Your task to perform on an android device: Do I have any events tomorrow? Image 0: 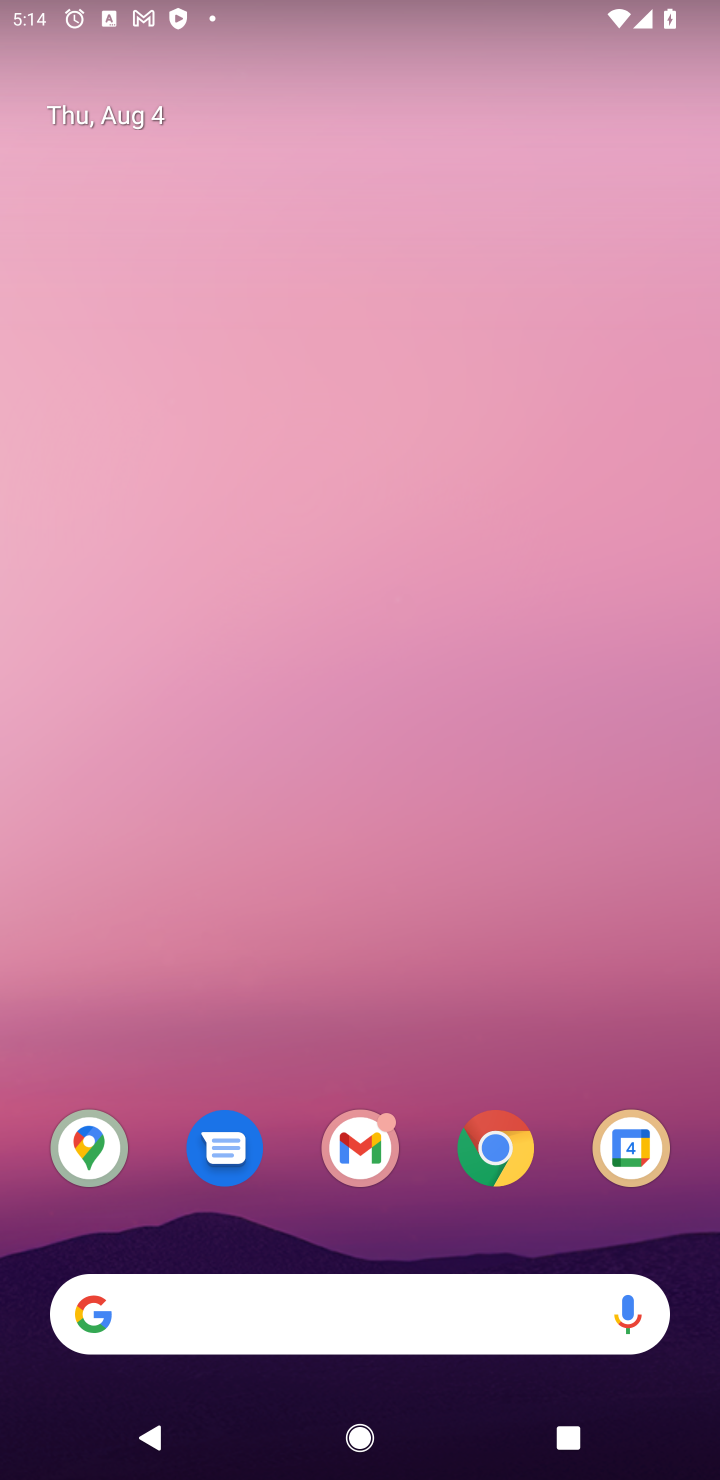
Step 0: drag from (563, 1207) to (559, 188)
Your task to perform on an android device: Do I have any events tomorrow? Image 1: 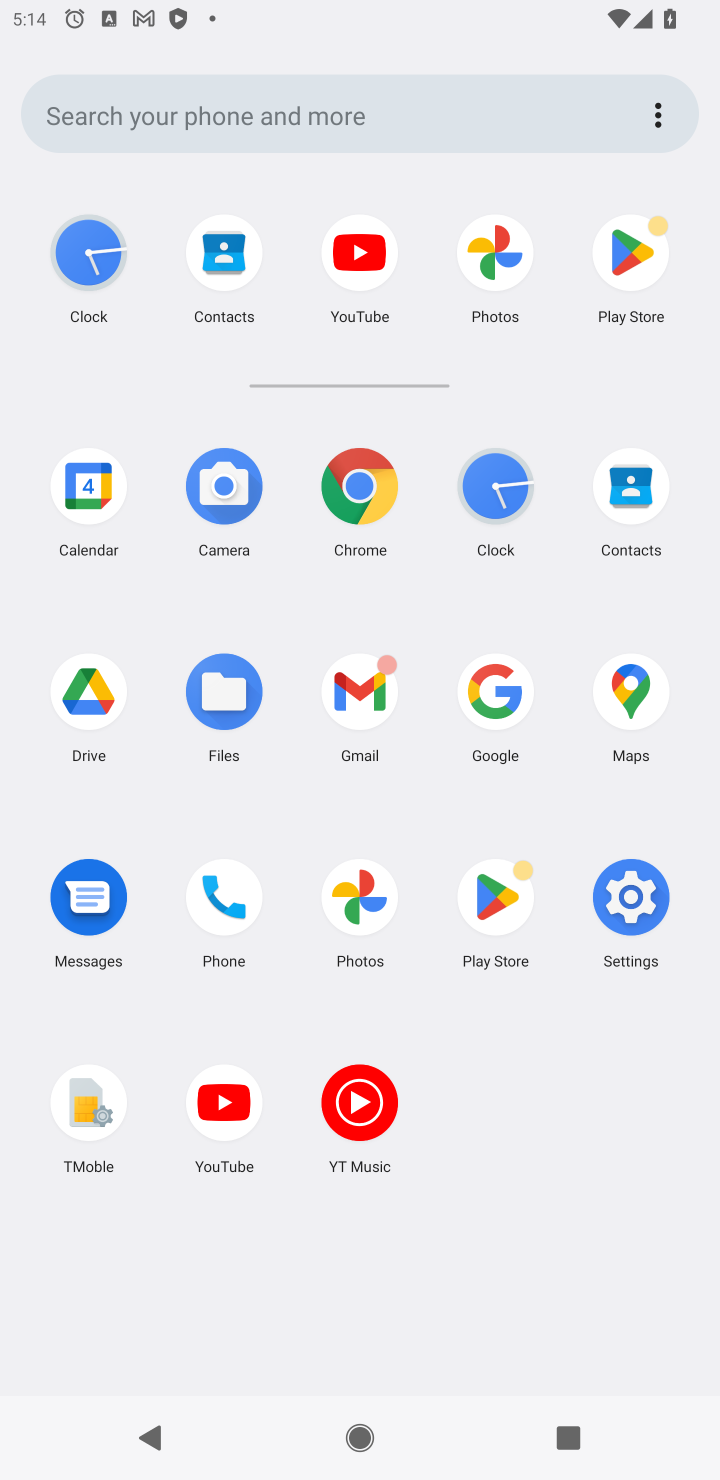
Step 1: click (81, 479)
Your task to perform on an android device: Do I have any events tomorrow? Image 2: 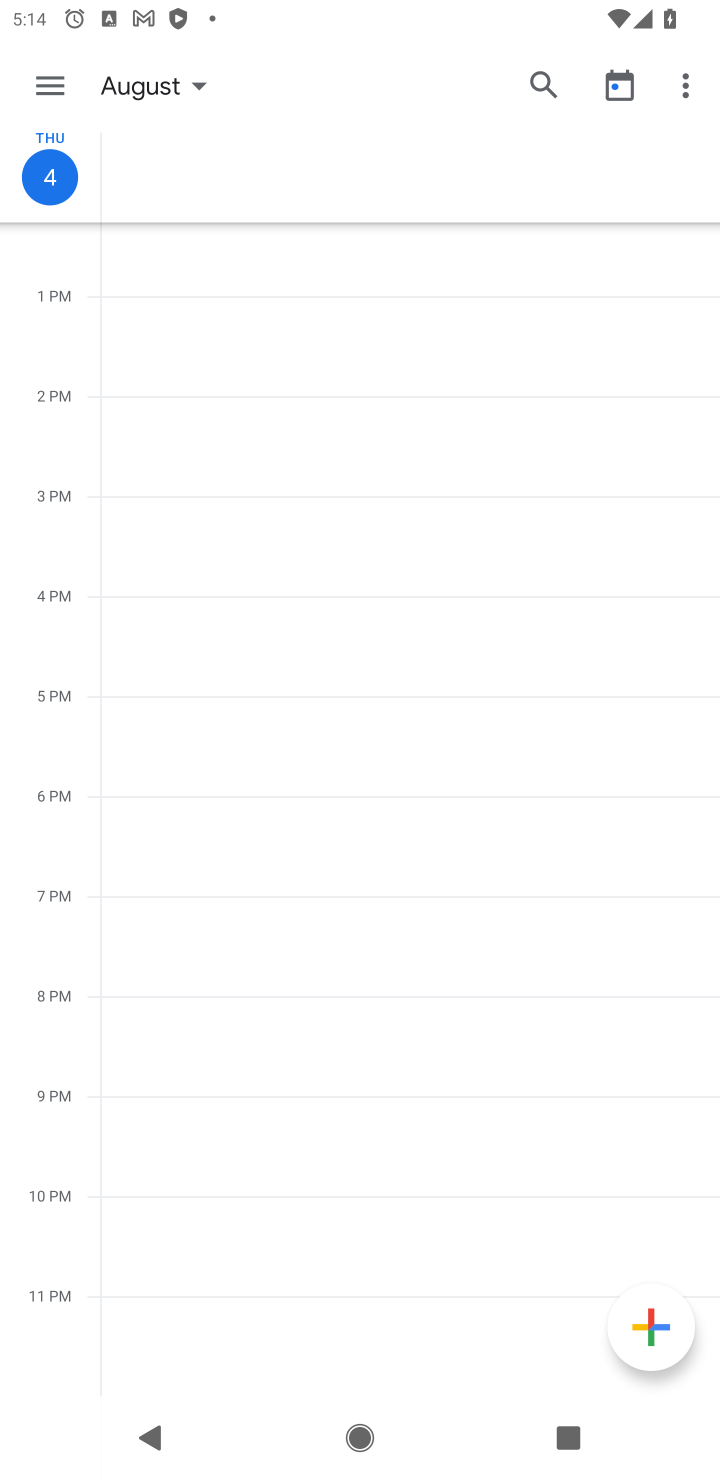
Step 2: click (191, 85)
Your task to perform on an android device: Do I have any events tomorrow? Image 3: 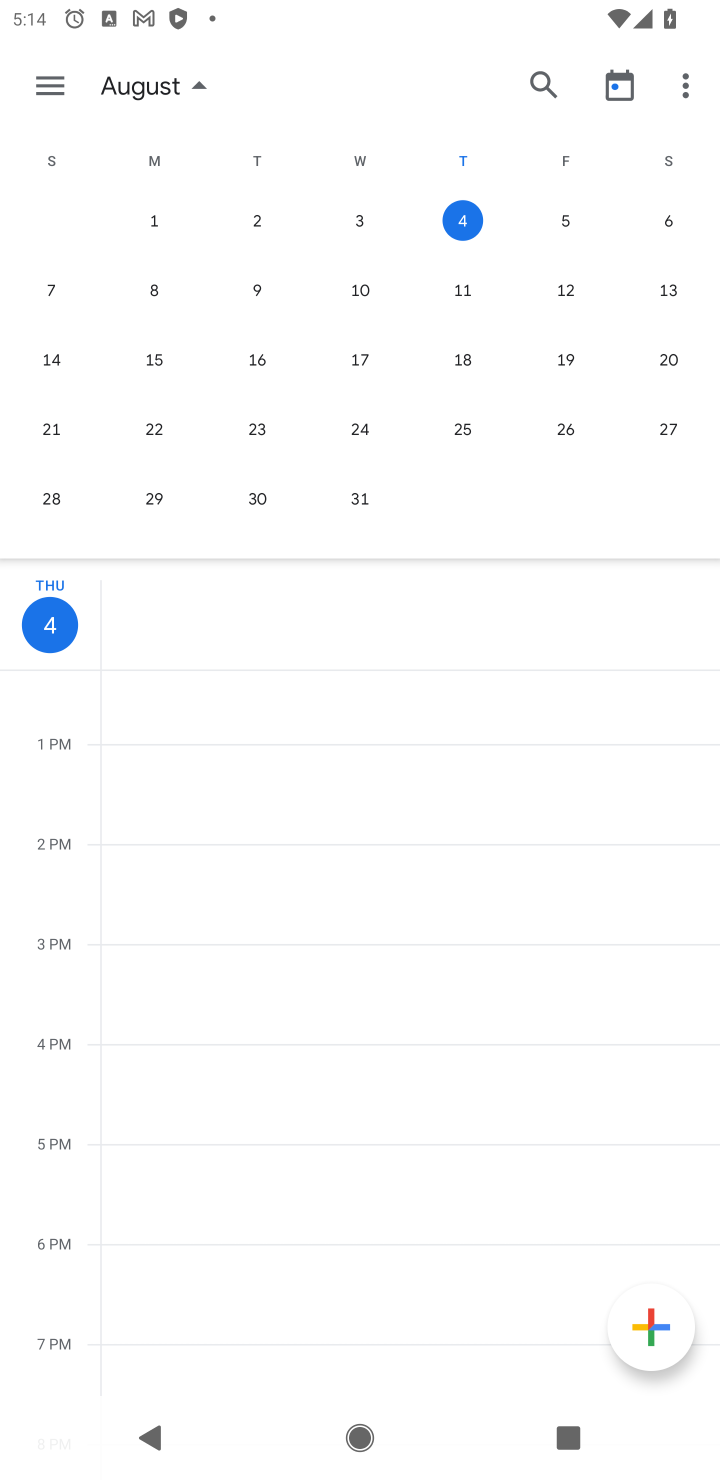
Step 3: click (559, 221)
Your task to perform on an android device: Do I have any events tomorrow? Image 4: 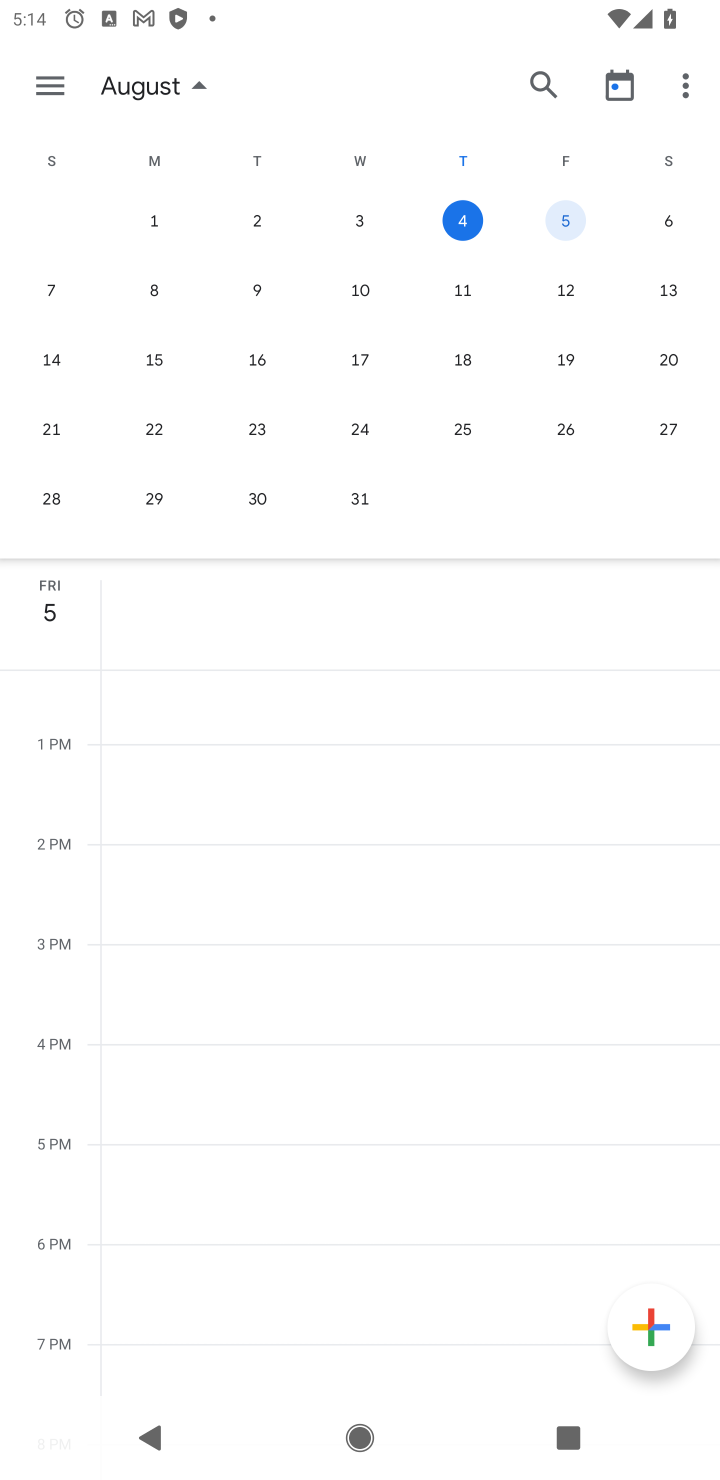
Step 4: click (191, 84)
Your task to perform on an android device: Do I have any events tomorrow? Image 5: 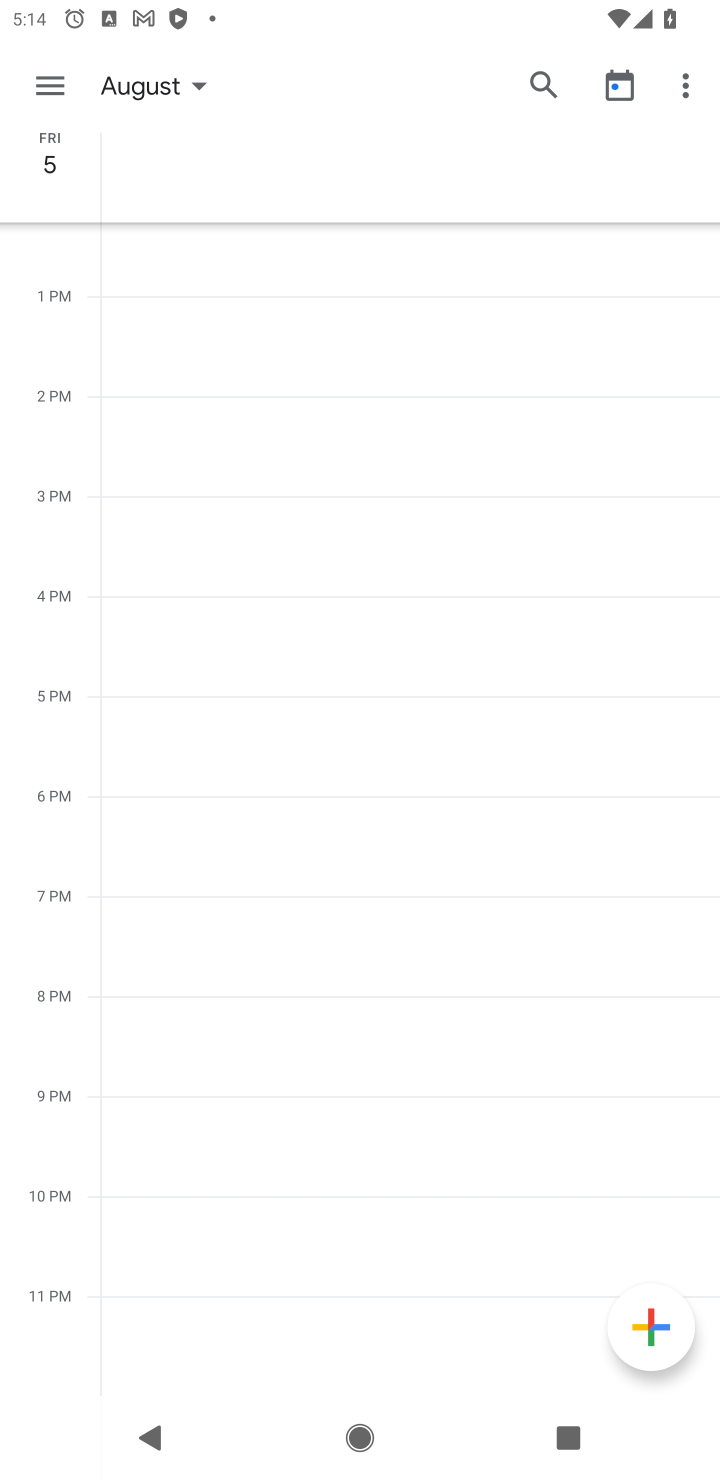
Step 5: task complete